Your task to perform on an android device: How big is the earth? Image 0: 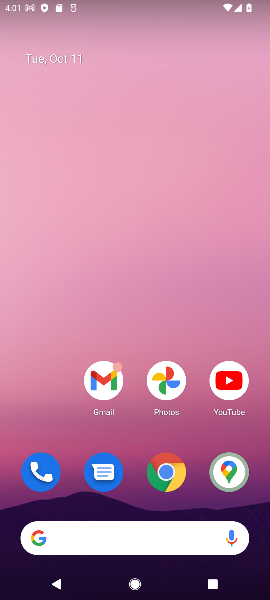
Step 0: click (166, 508)
Your task to perform on an android device: How big is the earth? Image 1: 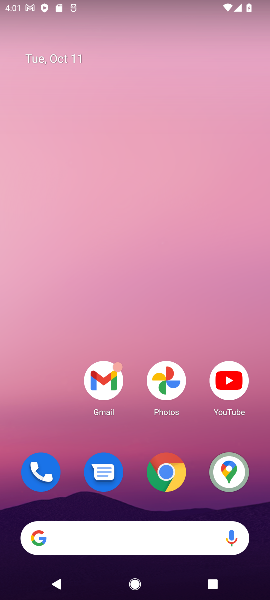
Step 1: click (128, 538)
Your task to perform on an android device: How big is the earth? Image 2: 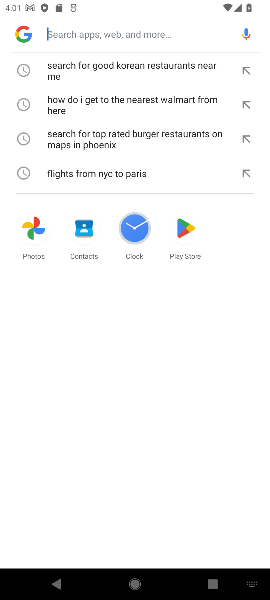
Step 2: type "How big is the earth?"
Your task to perform on an android device: How big is the earth? Image 3: 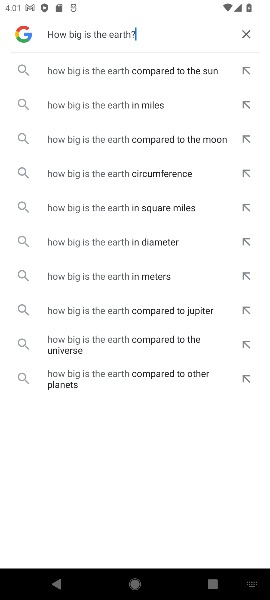
Step 3: click (111, 108)
Your task to perform on an android device: How big is the earth? Image 4: 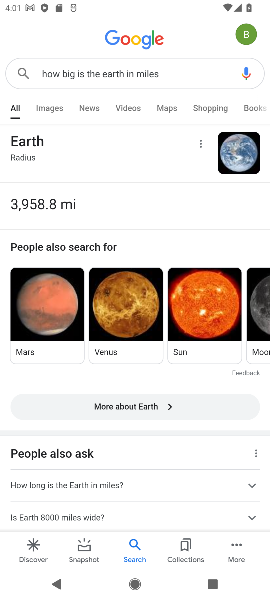
Step 4: task complete